Your task to perform on an android device: change notification settings in the gmail app Image 0: 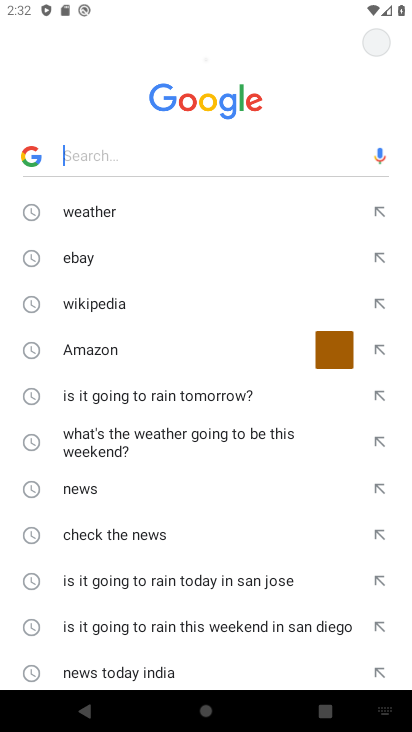
Step 0: press home button
Your task to perform on an android device: change notification settings in the gmail app Image 1: 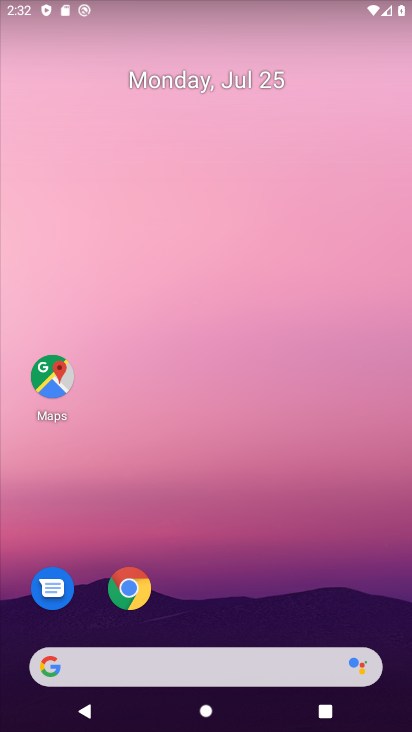
Step 1: drag from (242, 725) to (241, 145)
Your task to perform on an android device: change notification settings in the gmail app Image 2: 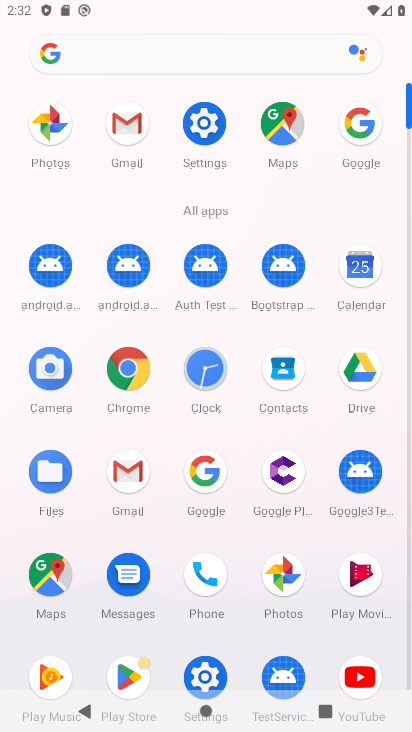
Step 2: click (127, 472)
Your task to perform on an android device: change notification settings in the gmail app Image 3: 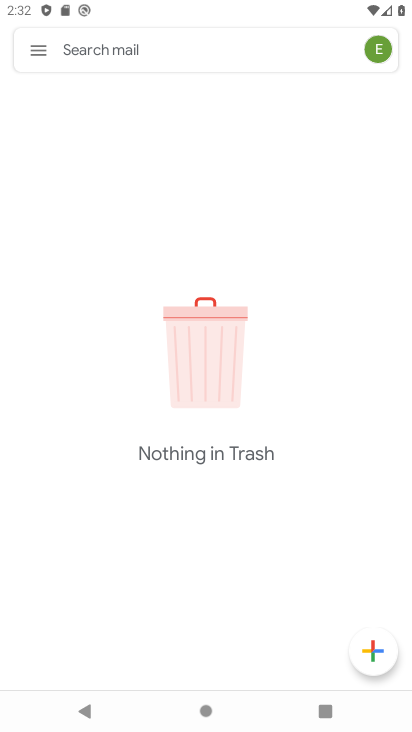
Step 3: click (28, 42)
Your task to perform on an android device: change notification settings in the gmail app Image 4: 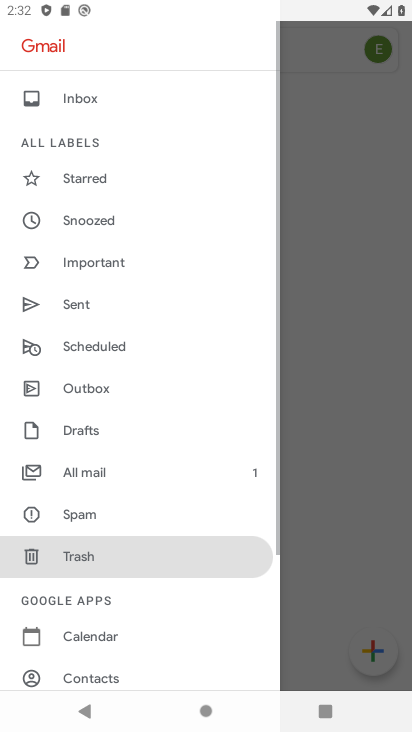
Step 4: drag from (113, 649) to (125, 213)
Your task to perform on an android device: change notification settings in the gmail app Image 5: 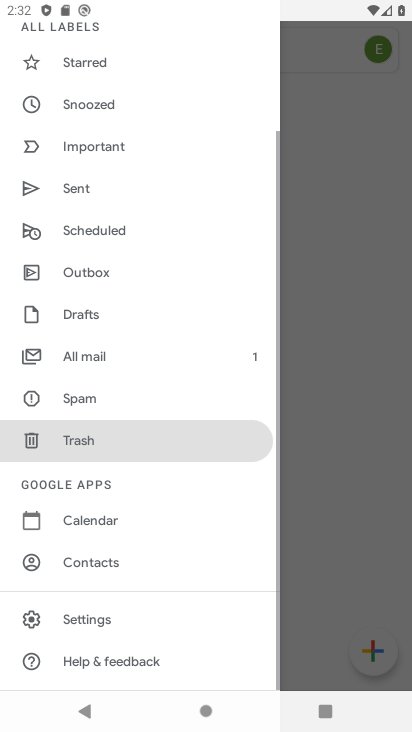
Step 5: click (85, 621)
Your task to perform on an android device: change notification settings in the gmail app Image 6: 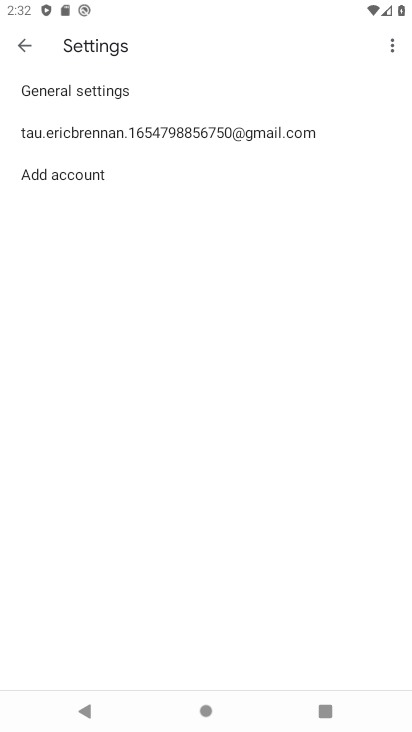
Step 6: click (240, 129)
Your task to perform on an android device: change notification settings in the gmail app Image 7: 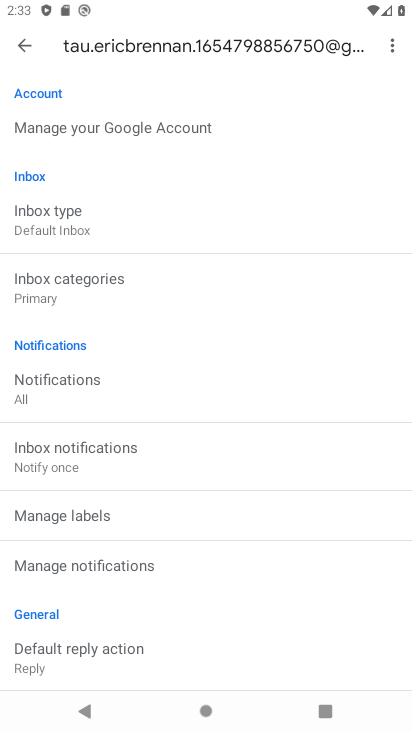
Step 7: click (50, 385)
Your task to perform on an android device: change notification settings in the gmail app Image 8: 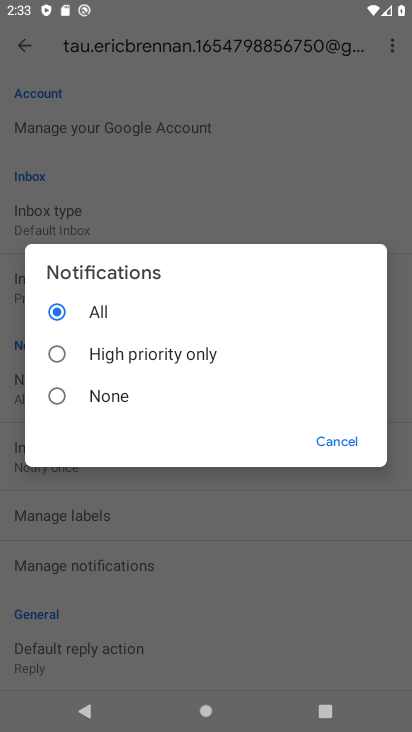
Step 8: click (55, 395)
Your task to perform on an android device: change notification settings in the gmail app Image 9: 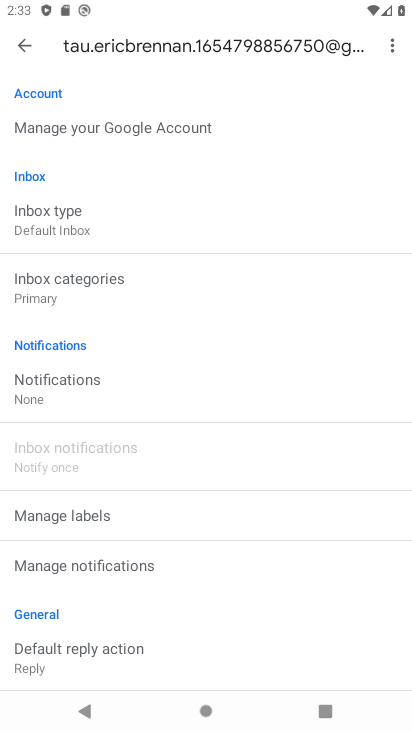
Step 9: task complete